Your task to perform on an android device: turn on airplane mode Image 0: 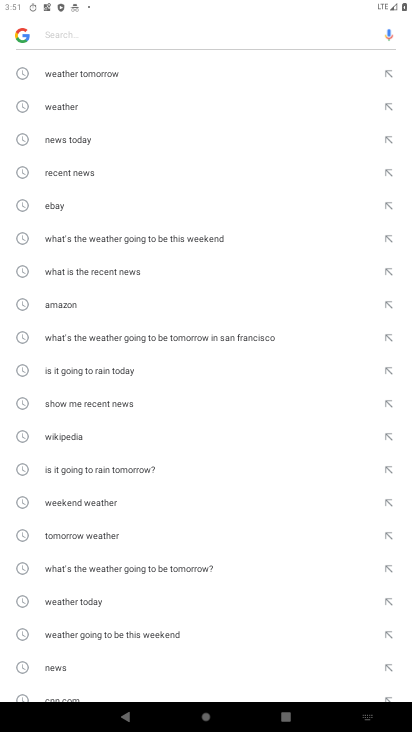
Step 0: press home button
Your task to perform on an android device: turn on airplane mode Image 1: 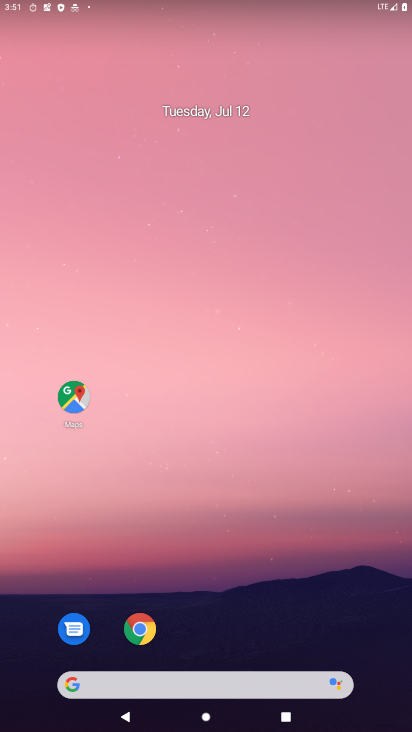
Step 1: drag from (225, 599) to (221, 379)
Your task to perform on an android device: turn on airplane mode Image 2: 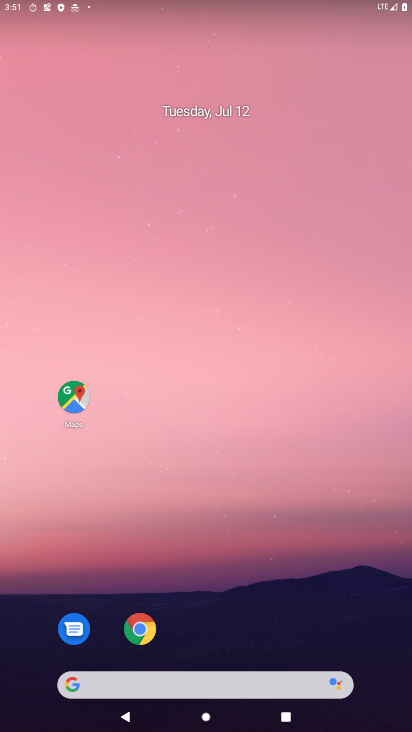
Step 2: drag from (282, 6) to (284, 544)
Your task to perform on an android device: turn on airplane mode Image 3: 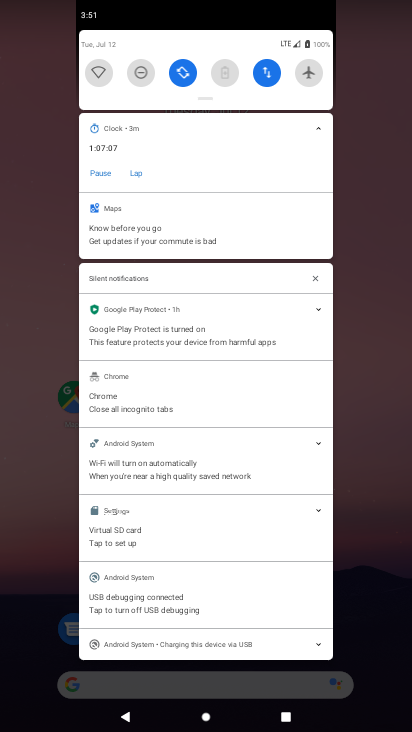
Step 3: click (309, 71)
Your task to perform on an android device: turn on airplane mode Image 4: 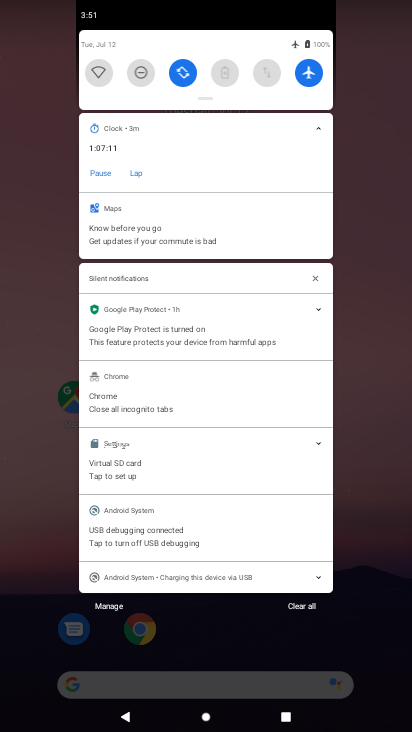
Step 4: task complete